Your task to perform on an android device: open chrome and create a bookmark for the current page Image 0: 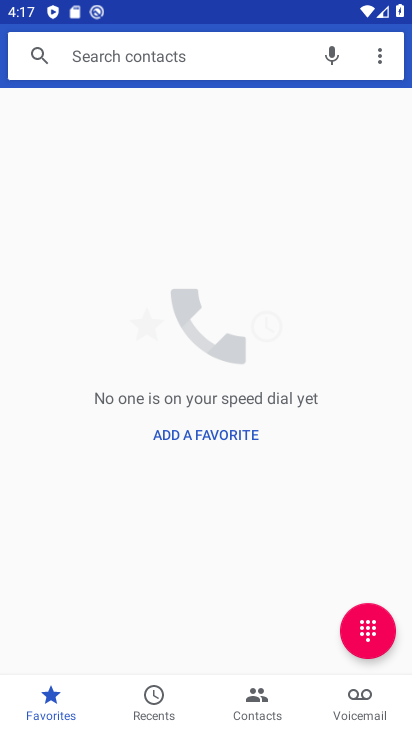
Step 0: press home button
Your task to perform on an android device: open chrome and create a bookmark for the current page Image 1: 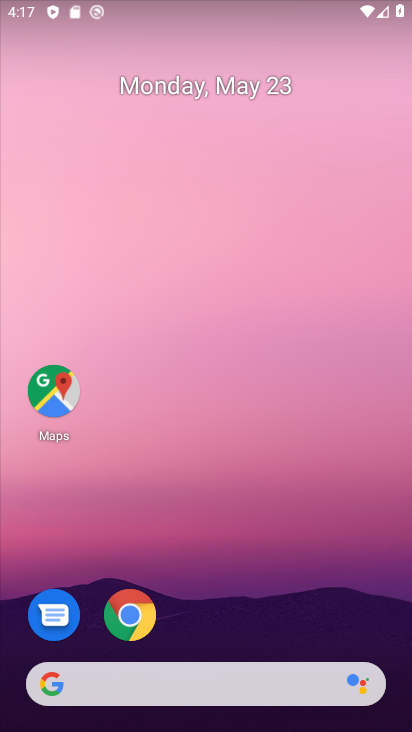
Step 1: click (126, 613)
Your task to perform on an android device: open chrome and create a bookmark for the current page Image 2: 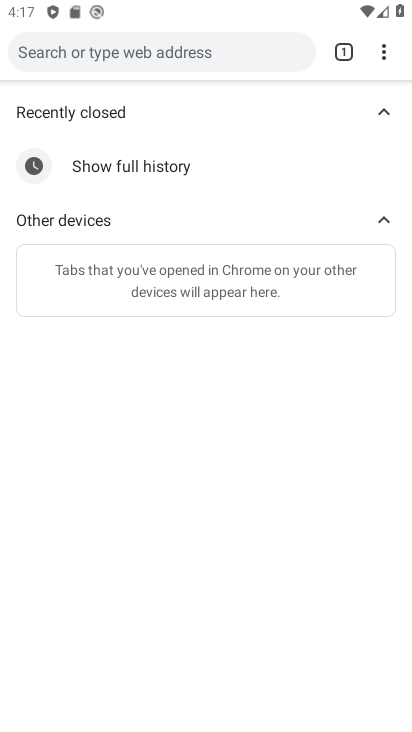
Step 2: click (385, 56)
Your task to perform on an android device: open chrome and create a bookmark for the current page Image 3: 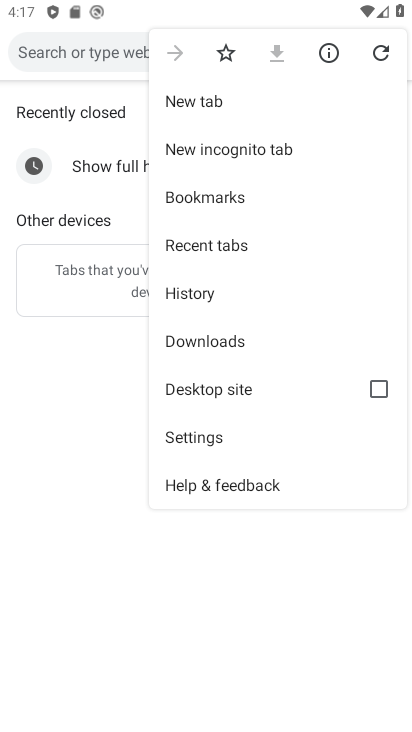
Step 3: click (239, 193)
Your task to perform on an android device: open chrome and create a bookmark for the current page Image 4: 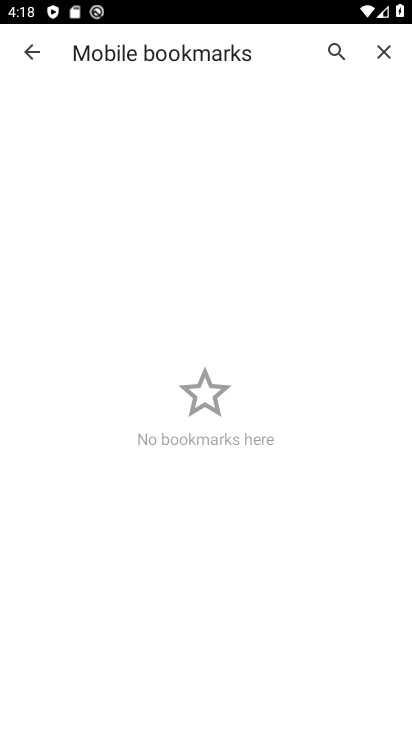
Step 4: click (388, 48)
Your task to perform on an android device: open chrome and create a bookmark for the current page Image 5: 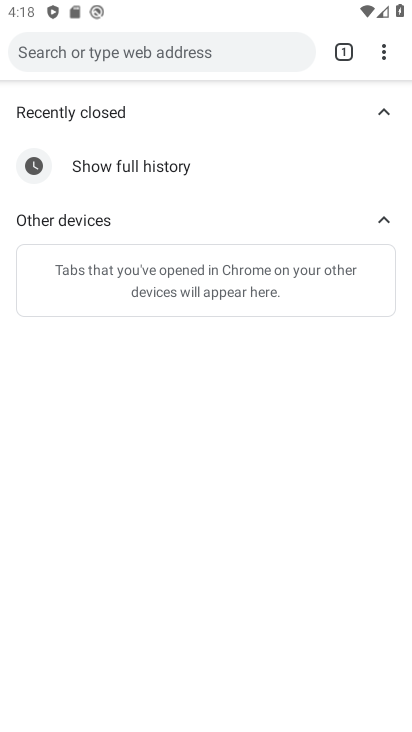
Step 5: click (384, 48)
Your task to perform on an android device: open chrome and create a bookmark for the current page Image 6: 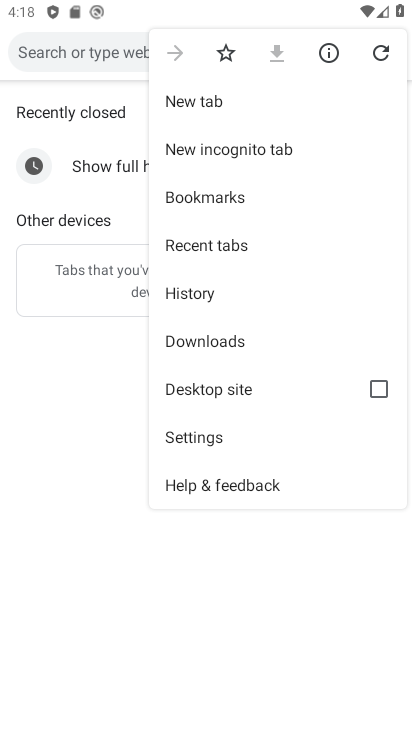
Step 6: click (227, 49)
Your task to perform on an android device: open chrome and create a bookmark for the current page Image 7: 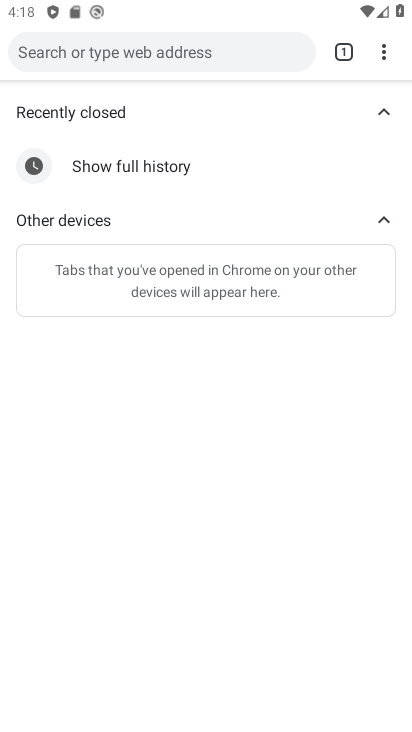
Step 7: task complete